Your task to perform on an android device: toggle show notifications on the lock screen Image 0: 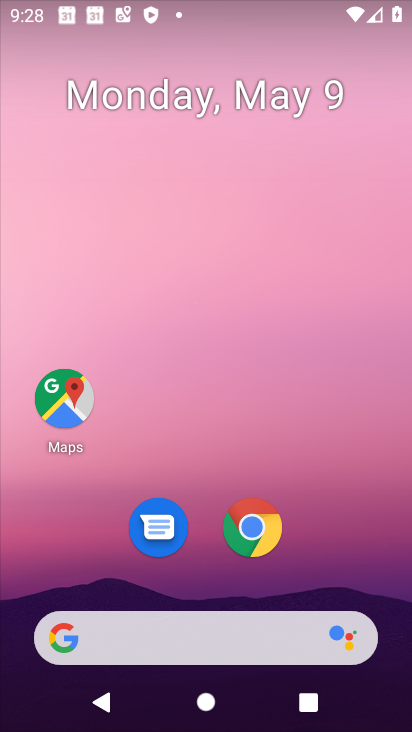
Step 0: drag from (214, 614) to (289, 251)
Your task to perform on an android device: toggle show notifications on the lock screen Image 1: 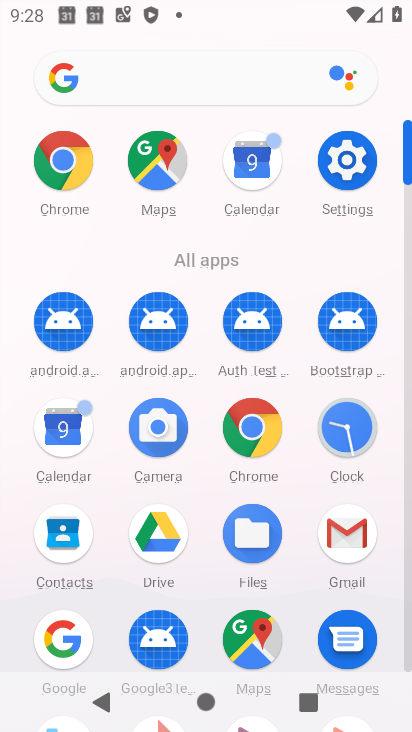
Step 1: click (338, 153)
Your task to perform on an android device: toggle show notifications on the lock screen Image 2: 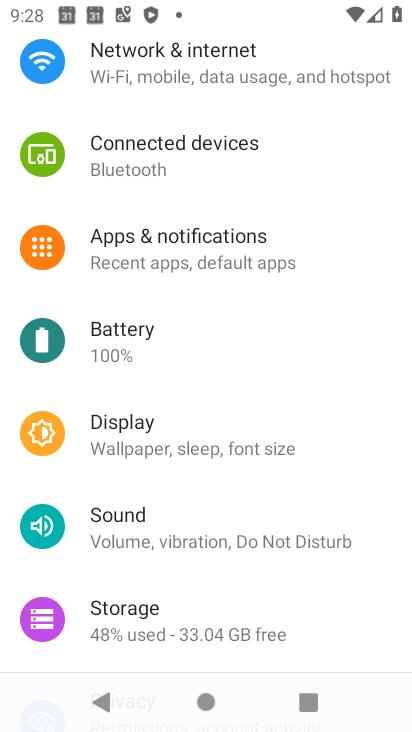
Step 2: drag from (154, 625) to (173, 261)
Your task to perform on an android device: toggle show notifications on the lock screen Image 3: 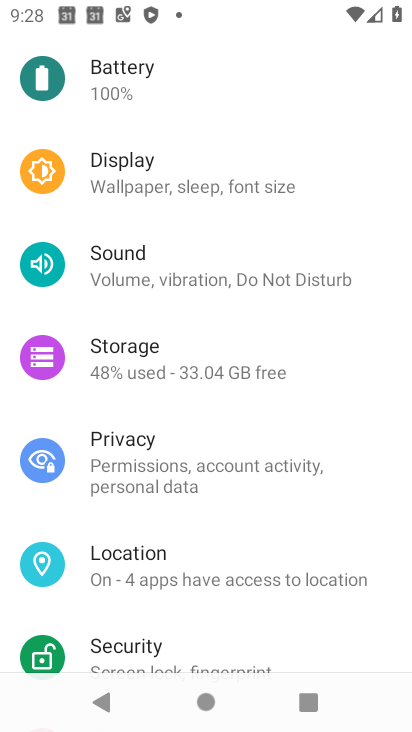
Step 3: drag from (155, 644) to (235, 293)
Your task to perform on an android device: toggle show notifications on the lock screen Image 4: 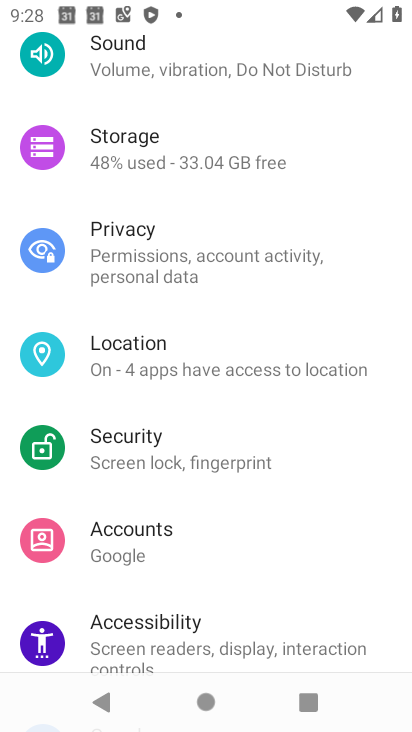
Step 4: click (148, 243)
Your task to perform on an android device: toggle show notifications on the lock screen Image 5: 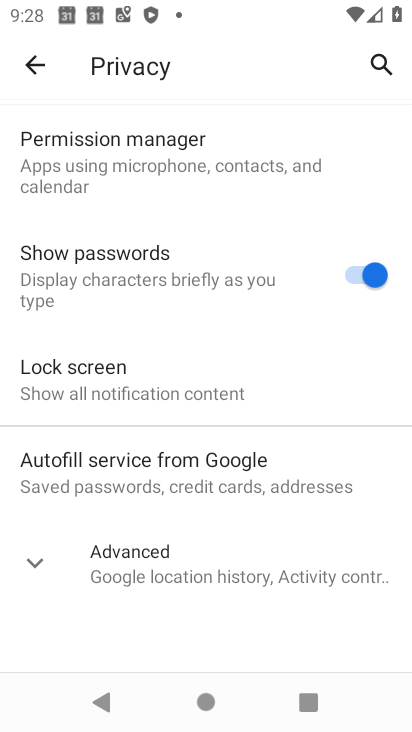
Step 5: click (100, 391)
Your task to perform on an android device: toggle show notifications on the lock screen Image 6: 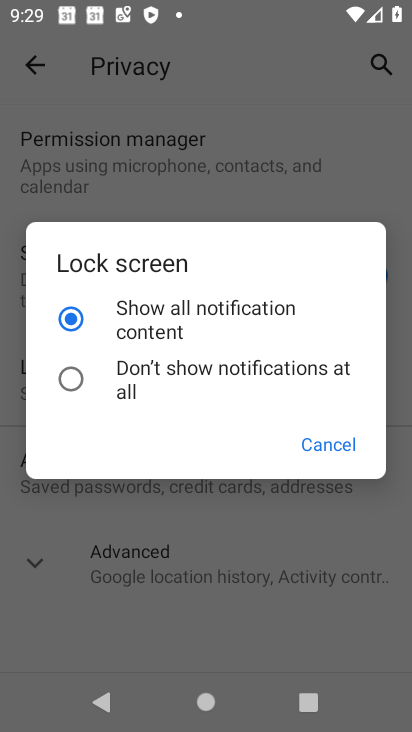
Step 6: click (64, 378)
Your task to perform on an android device: toggle show notifications on the lock screen Image 7: 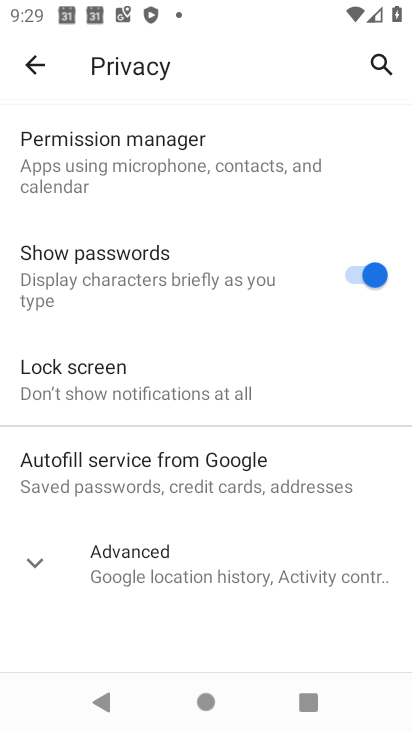
Step 7: task complete